Your task to perform on an android device: empty trash in google photos Image 0: 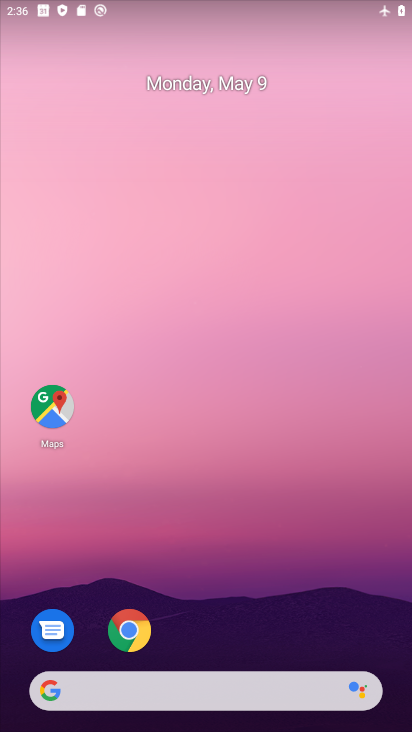
Step 0: drag from (260, 630) to (215, 197)
Your task to perform on an android device: empty trash in google photos Image 1: 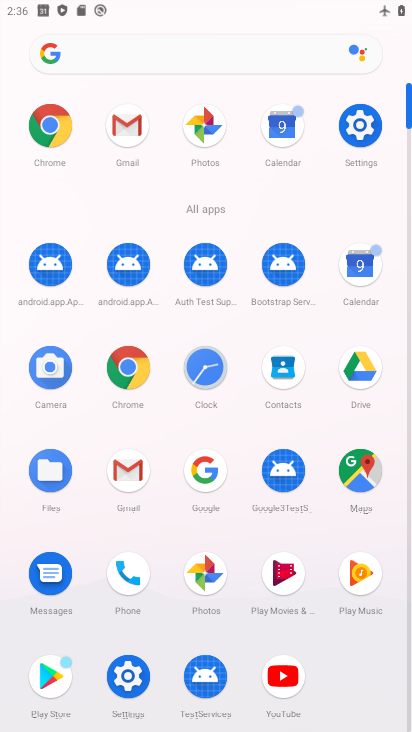
Step 1: click (205, 123)
Your task to perform on an android device: empty trash in google photos Image 2: 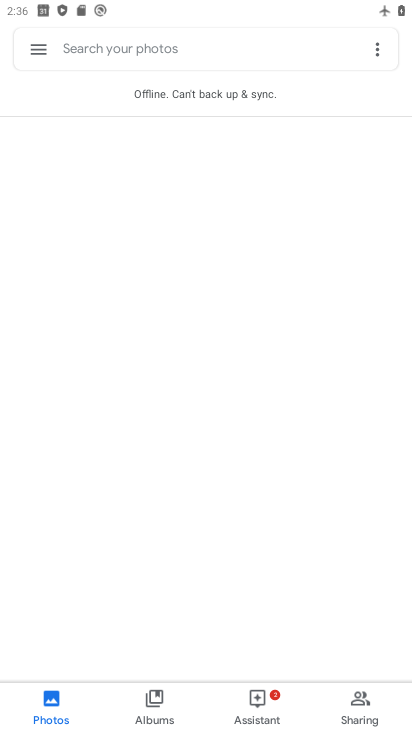
Step 2: click (37, 65)
Your task to perform on an android device: empty trash in google photos Image 3: 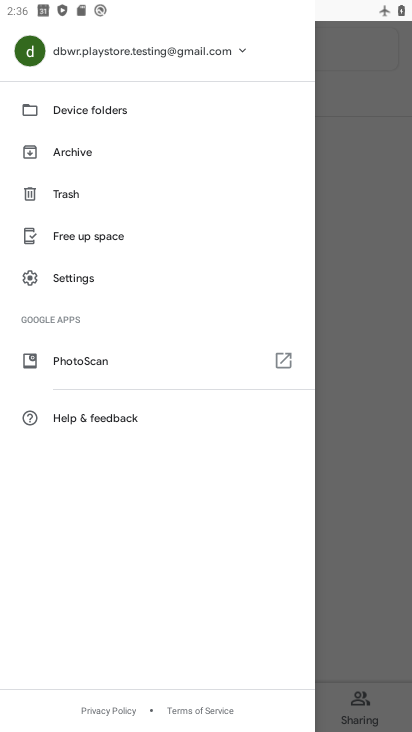
Step 3: click (104, 199)
Your task to perform on an android device: empty trash in google photos Image 4: 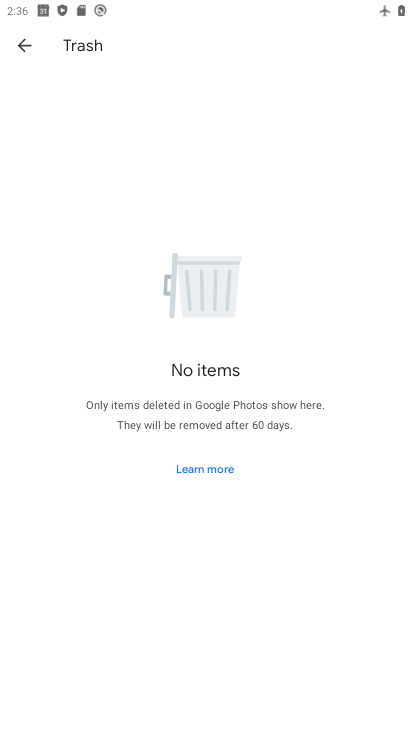
Step 4: task complete